Your task to perform on an android device: Open CNN.com Image 0: 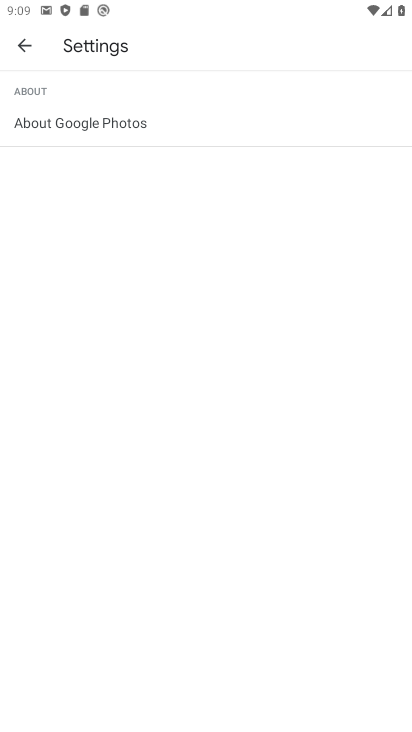
Step 0: press home button
Your task to perform on an android device: Open CNN.com Image 1: 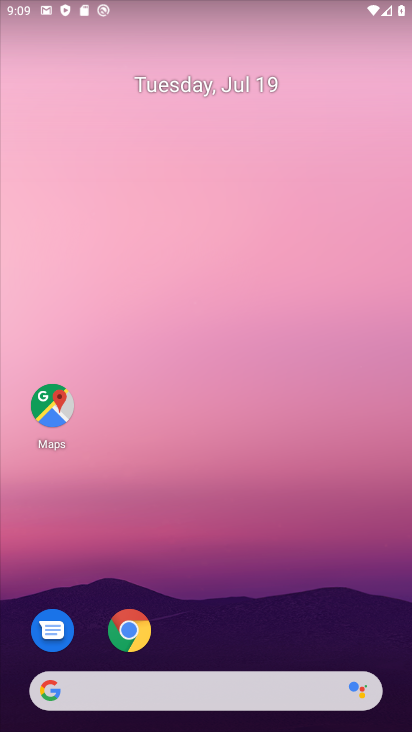
Step 1: click (82, 689)
Your task to perform on an android device: Open CNN.com Image 2: 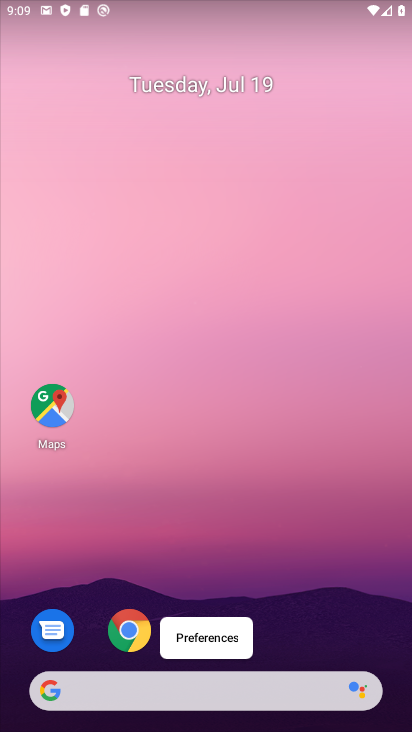
Step 2: click (86, 686)
Your task to perform on an android device: Open CNN.com Image 3: 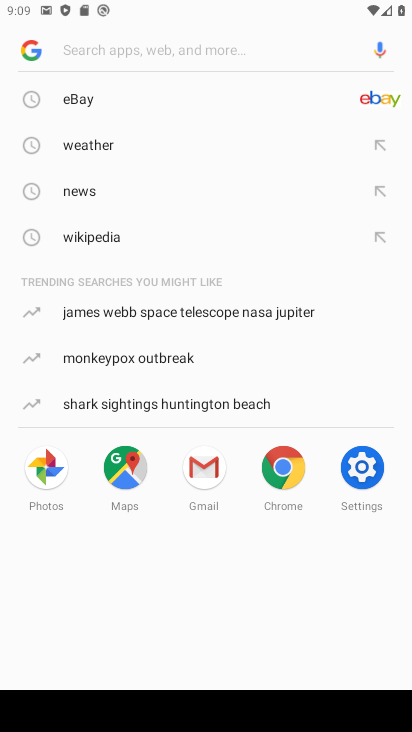
Step 3: type "CNN.com"
Your task to perform on an android device: Open CNN.com Image 4: 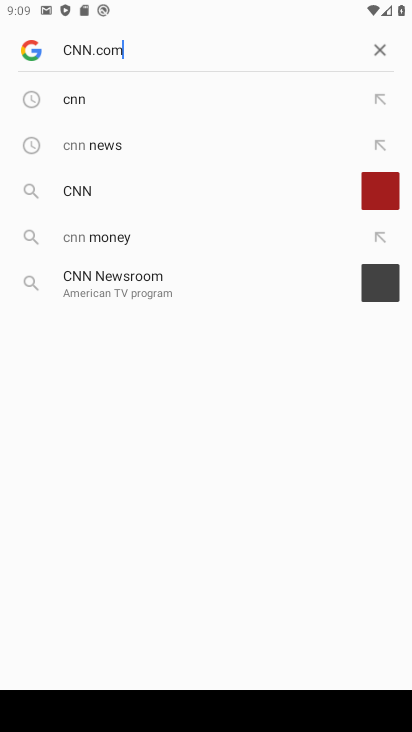
Step 4: type ""
Your task to perform on an android device: Open CNN.com Image 5: 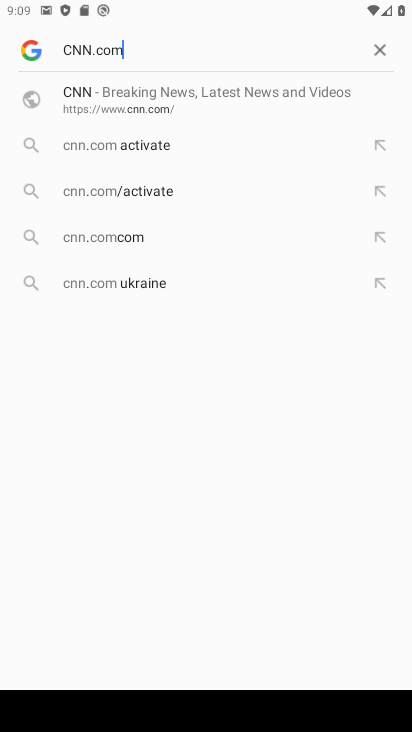
Step 5: click (62, 86)
Your task to perform on an android device: Open CNN.com Image 6: 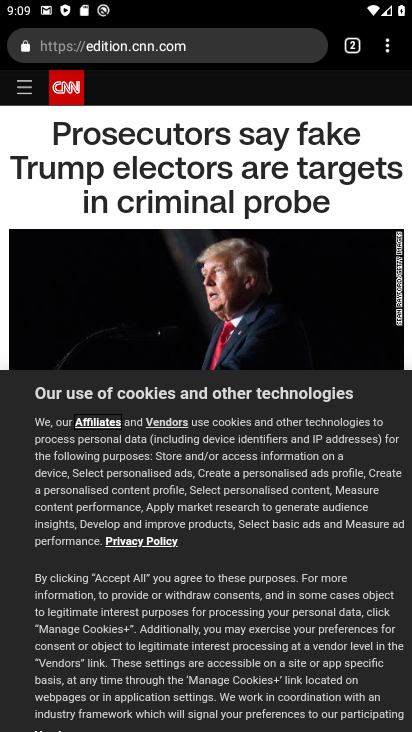
Step 6: task complete